Your task to perform on an android device: add a contact in the contacts app Image 0: 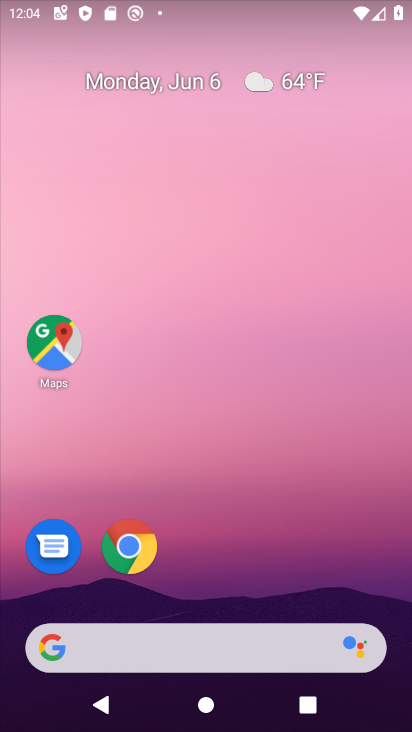
Step 0: drag from (218, 569) to (222, 255)
Your task to perform on an android device: add a contact in the contacts app Image 1: 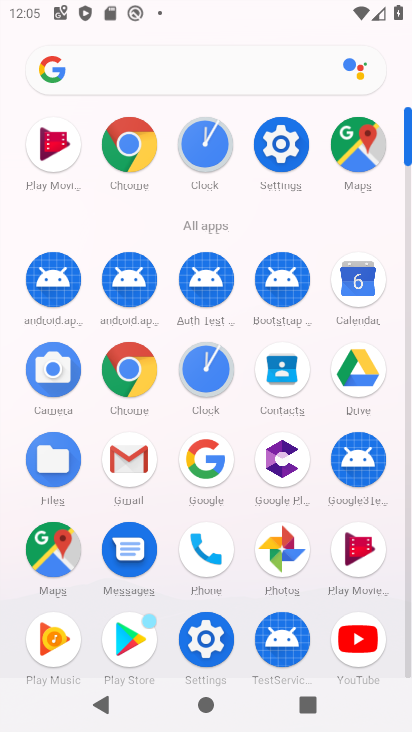
Step 1: click (208, 539)
Your task to perform on an android device: add a contact in the contacts app Image 2: 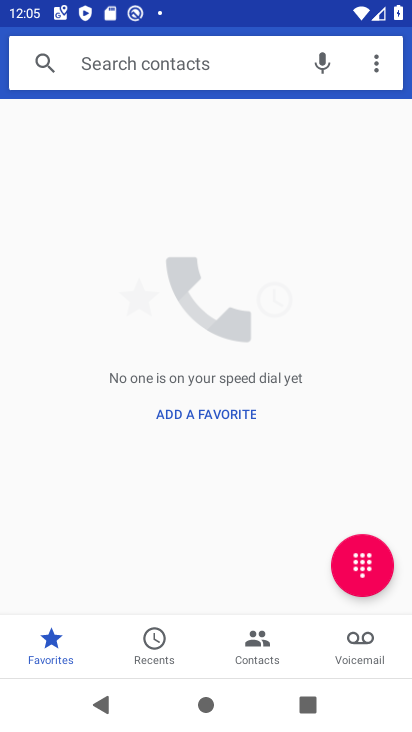
Step 2: click (211, 407)
Your task to perform on an android device: add a contact in the contacts app Image 3: 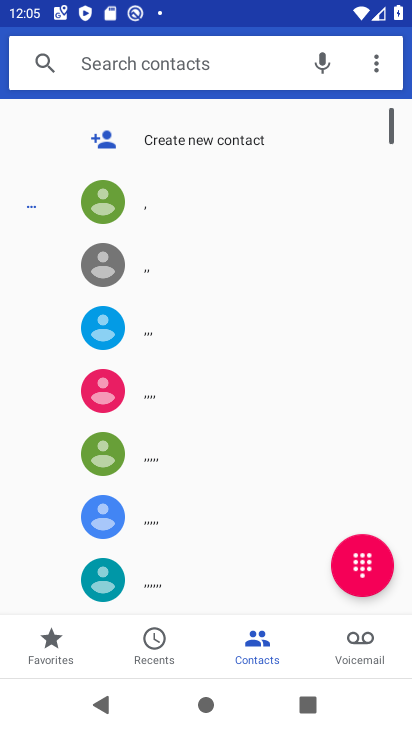
Step 3: click (173, 136)
Your task to perform on an android device: add a contact in the contacts app Image 4: 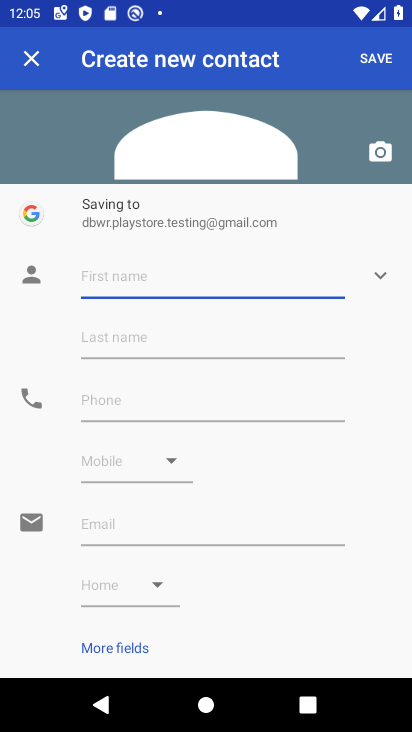
Step 4: click (171, 272)
Your task to perform on an android device: add a contact in the contacts app Image 5: 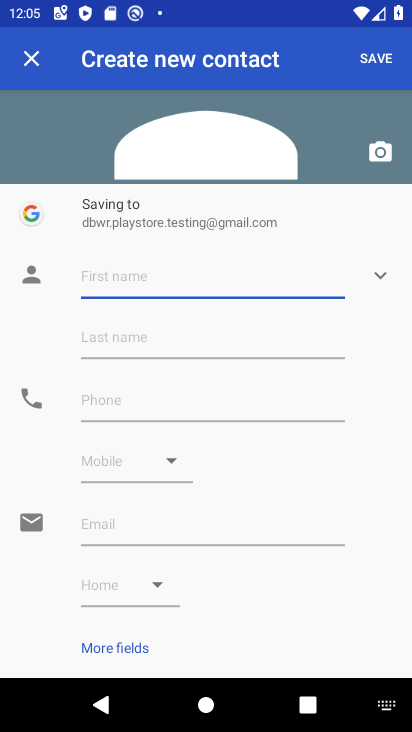
Step 5: type "jjbjbjbjbbjggcccg"
Your task to perform on an android device: add a contact in the contacts app Image 6: 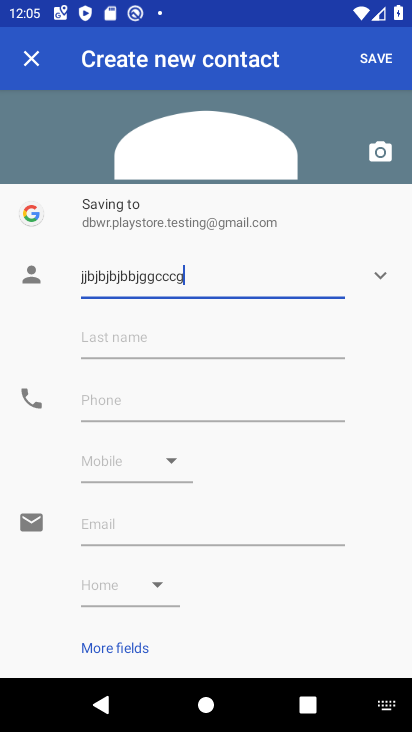
Step 6: click (162, 404)
Your task to perform on an android device: add a contact in the contacts app Image 7: 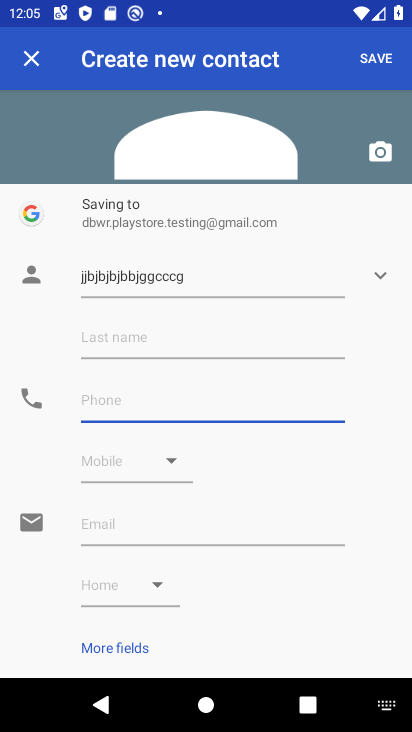
Step 7: type "98776655555"
Your task to perform on an android device: add a contact in the contacts app Image 8: 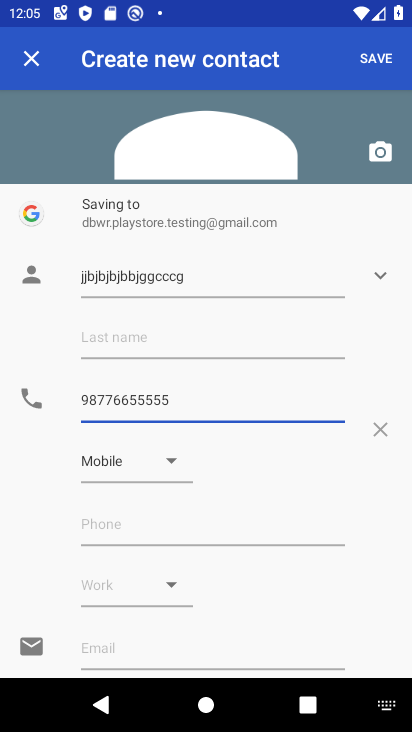
Step 8: click (353, 70)
Your task to perform on an android device: add a contact in the contacts app Image 9: 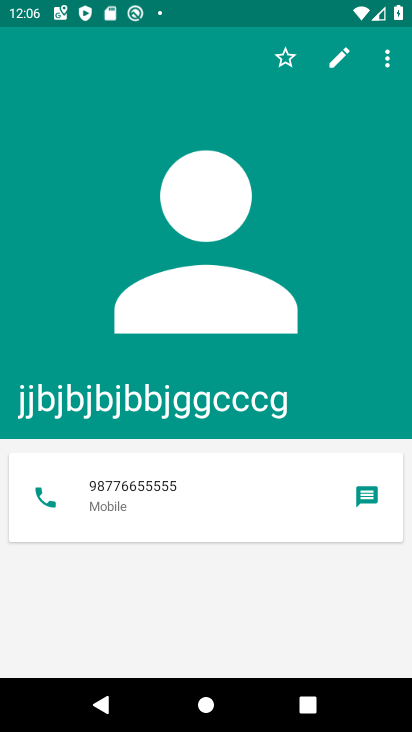
Step 9: task complete